Your task to perform on an android device: Empty the shopping cart on walmart. Search for "asus zenbook" on walmart, select the first entry, and add it to the cart. Image 0: 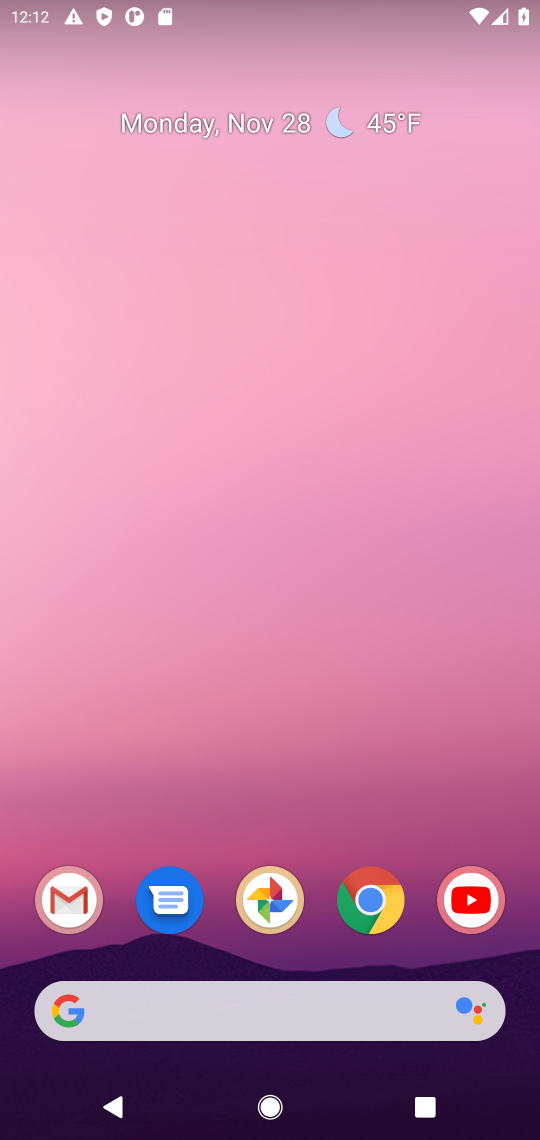
Step 0: click (367, 908)
Your task to perform on an android device: Empty the shopping cart on walmart. Search for "asus zenbook" on walmart, select the first entry, and add it to the cart. Image 1: 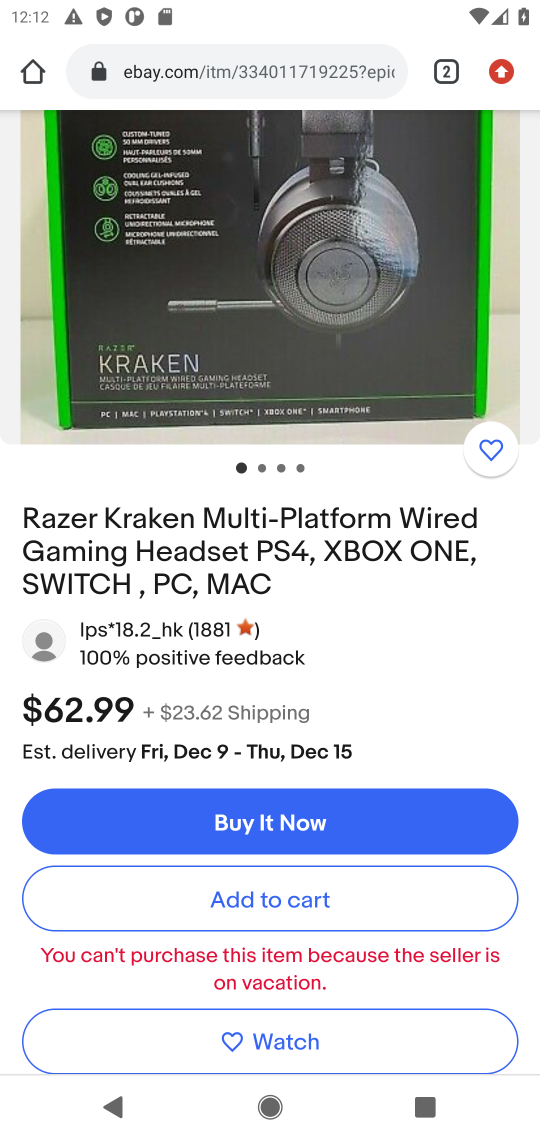
Step 1: click (208, 80)
Your task to perform on an android device: Empty the shopping cart on walmart. Search for "asus zenbook" on walmart, select the first entry, and add it to the cart. Image 2: 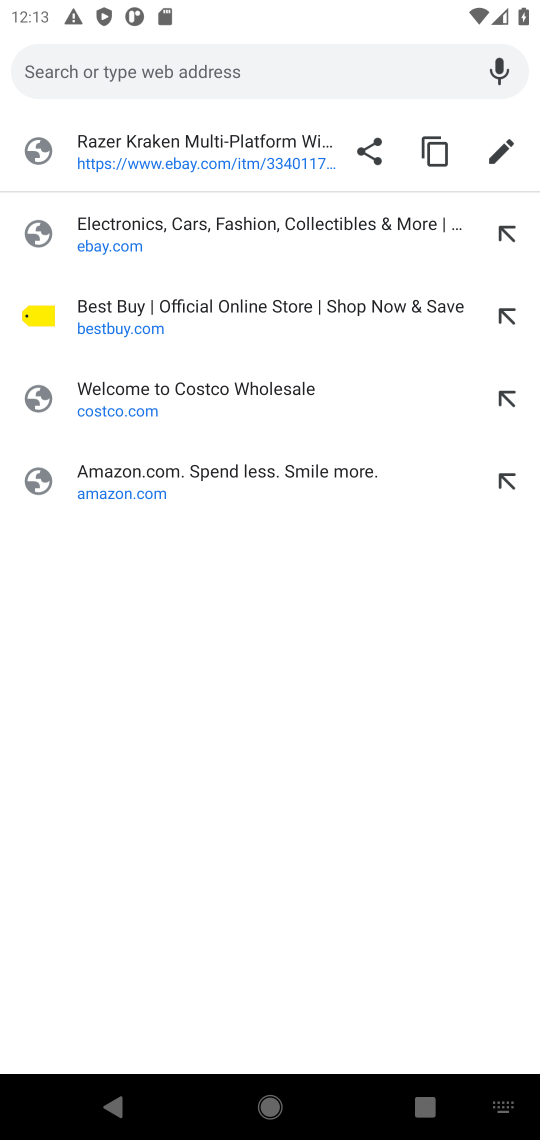
Step 2: click (123, 68)
Your task to perform on an android device: Empty the shopping cart on walmart. Search for "asus zenbook" on walmart, select the first entry, and add it to the cart. Image 3: 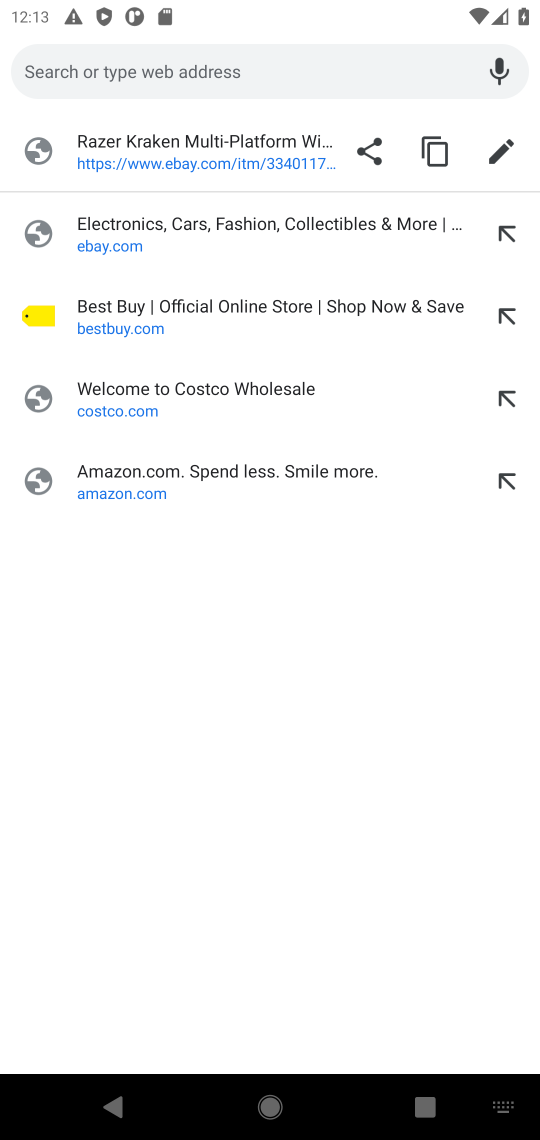
Step 3: type "walmart.com"
Your task to perform on an android device: Empty the shopping cart on walmart. Search for "asus zenbook" on walmart, select the first entry, and add it to the cart. Image 4: 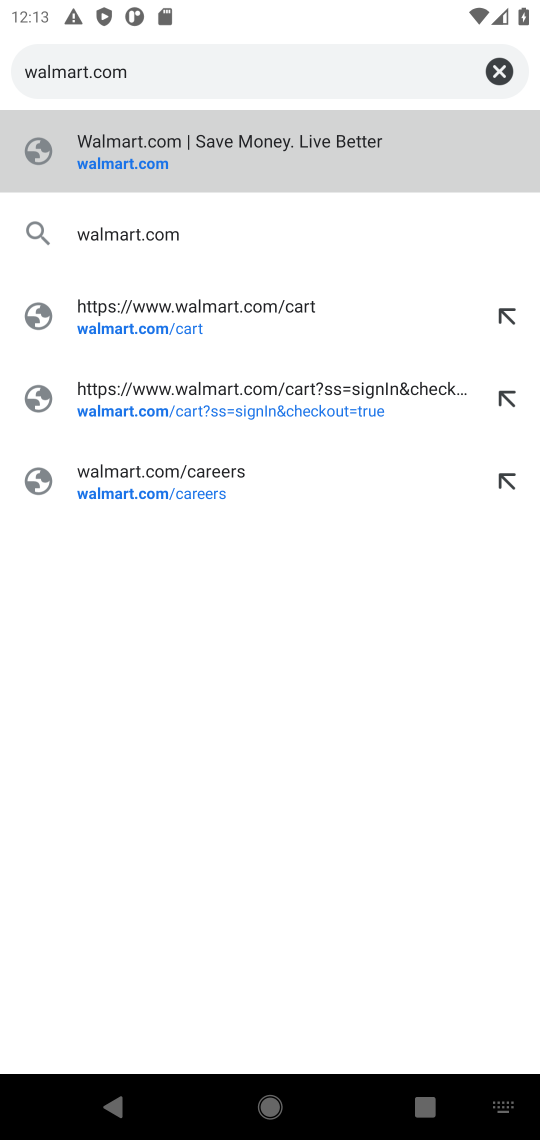
Step 4: click (109, 165)
Your task to perform on an android device: Empty the shopping cart on walmart. Search for "asus zenbook" on walmart, select the first entry, and add it to the cart. Image 5: 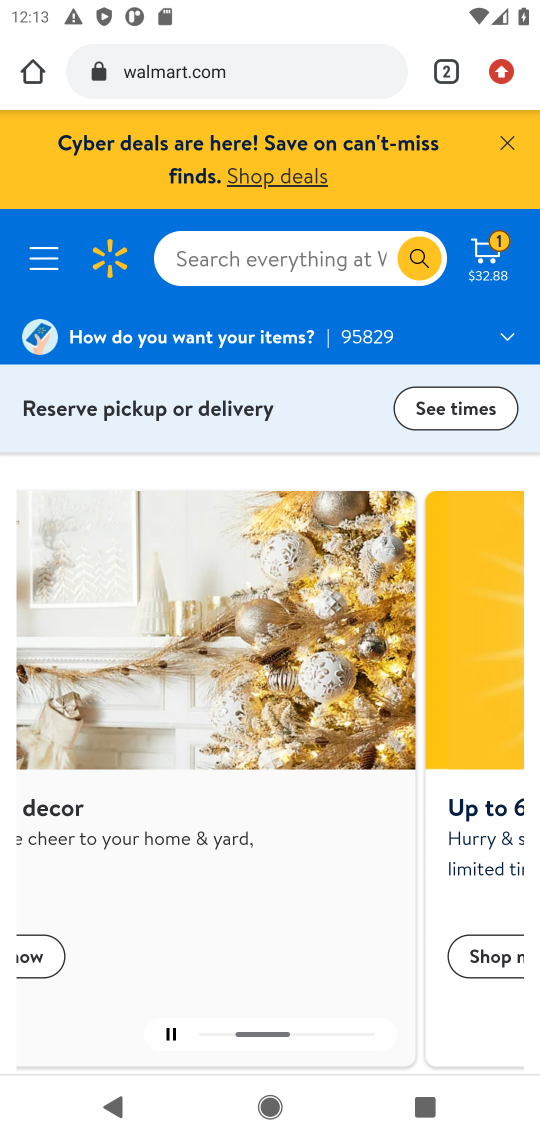
Step 5: click (490, 256)
Your task to perform on an android device: Empty the shopping cart on walmart. Search for "asus zenbook" on walmart, select the first entry, and add it to the cart. Image 6: 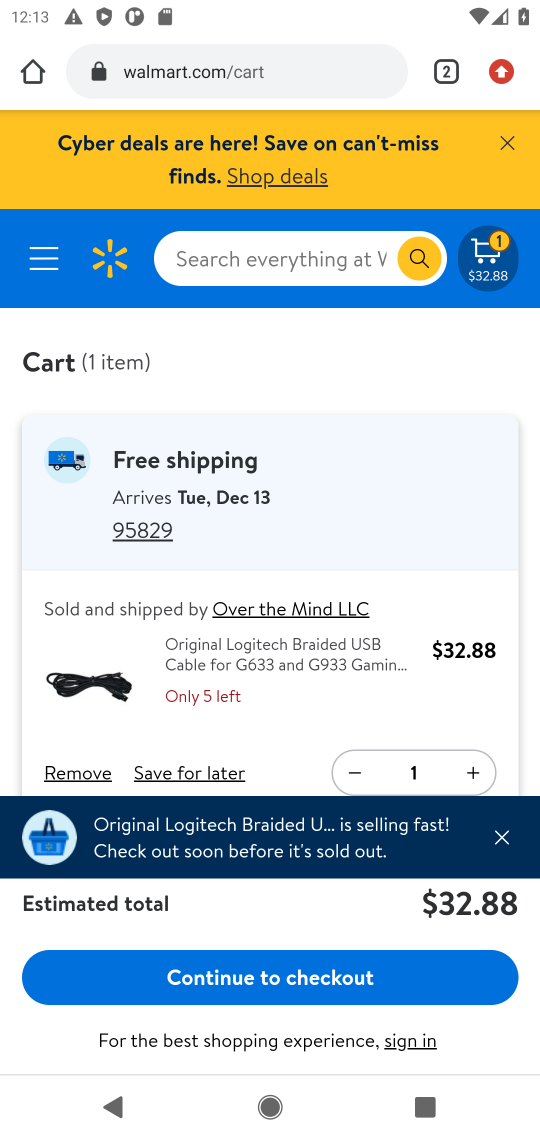
Step 6: drag from (299, 675) to (321, 397)
Your task to perform on an android device: Empty the shopping cart on walmart. Search for "asus zenbook" on walmart, select the first entry, and add it to the cart. Image 7: 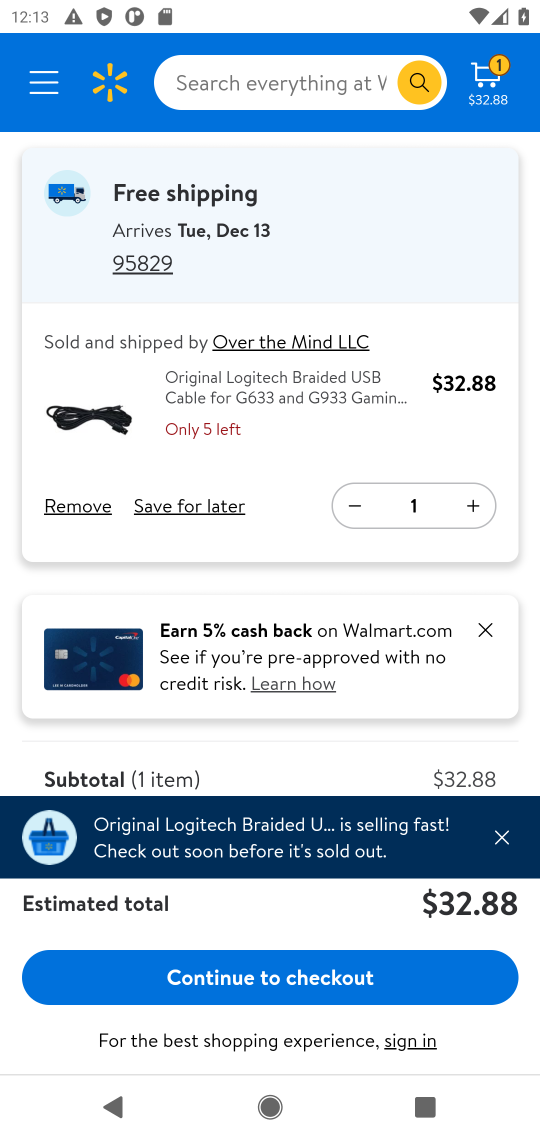
Step 7: click (85, 509)
Your task to perform on an android device: Empty the shopping cart on walmart. Search for "asus zenbook" on walmart, select the first entry, and add it to the cart. Image 8: 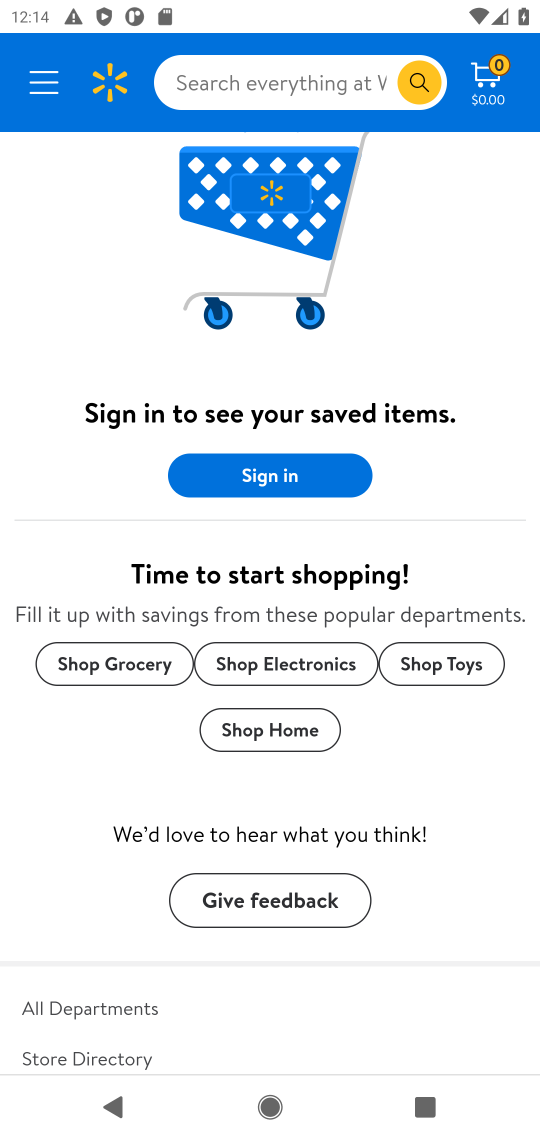
Step 8: click (192, 80)
Your task to perform on an android device: Empty the shopping cart on walmart. Search for "asus zenbook" on walmart, select the first entry, and add it to the cart. Image 9: 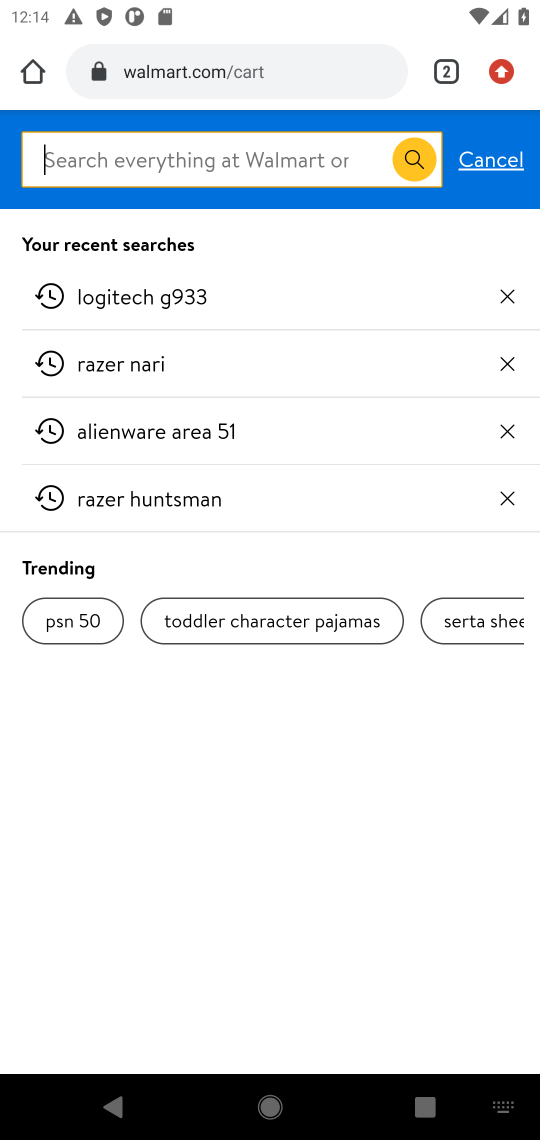
Step 9: type "asus zenbook"
Your task to perform on an android device: Empty the shopping cart on walmart. Search for "asus zenbook" on walmart, select the first entry, and add it to the cart. Image 10: 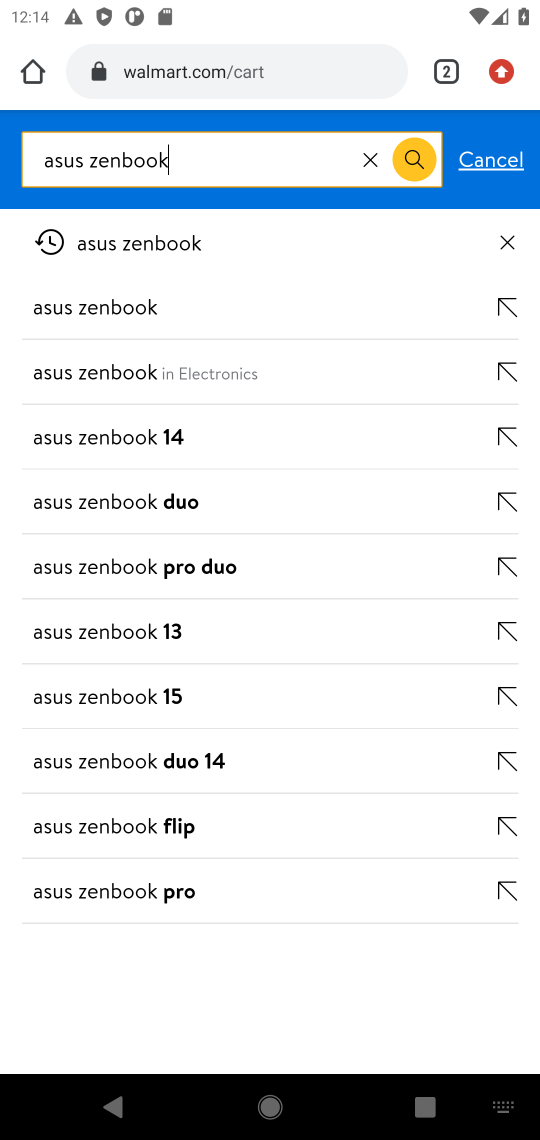
Step 10: click (130, 251)
Your task to perform on an android device: Empty the shopping cart on walmart. Search for "asus zenbook" on walmart, select the first entry, and add it to the cart. Image 11: 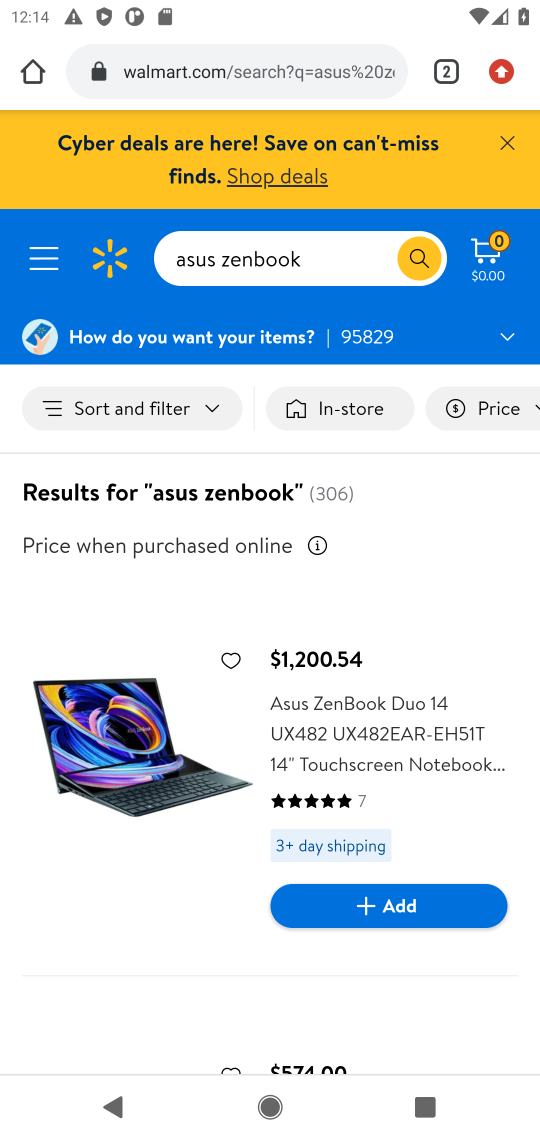
Step 11: click (415, 916)
Your task to perform on an android device: Empty the shopping cart on walmart. Search for "asus zenbook" on walmart, select the first entry, and add it to the cart. Image 12: 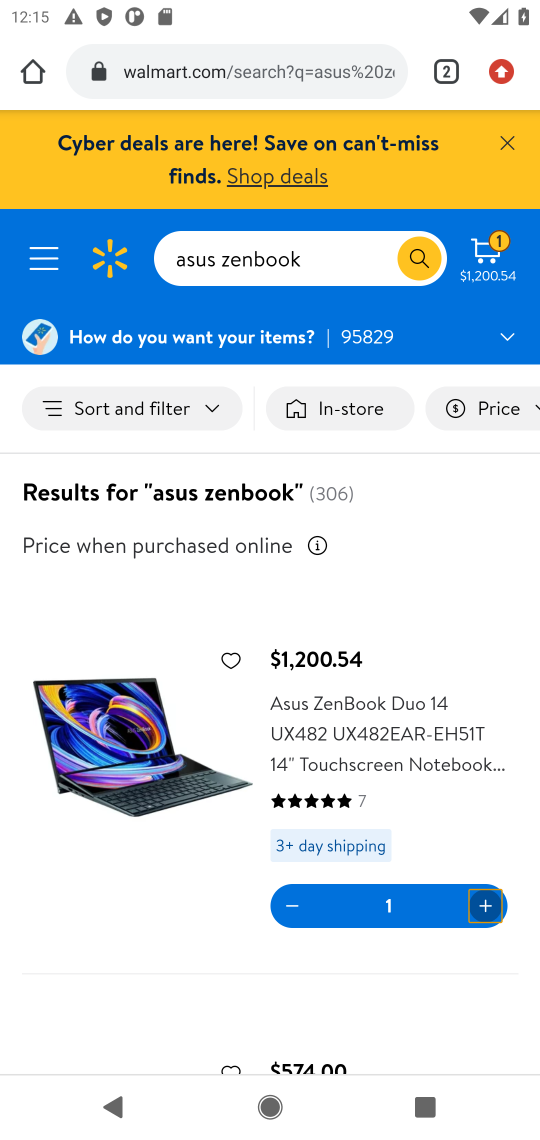
Step 12: task complete